Your task to perform on an android device: Open sound settings Image 0: 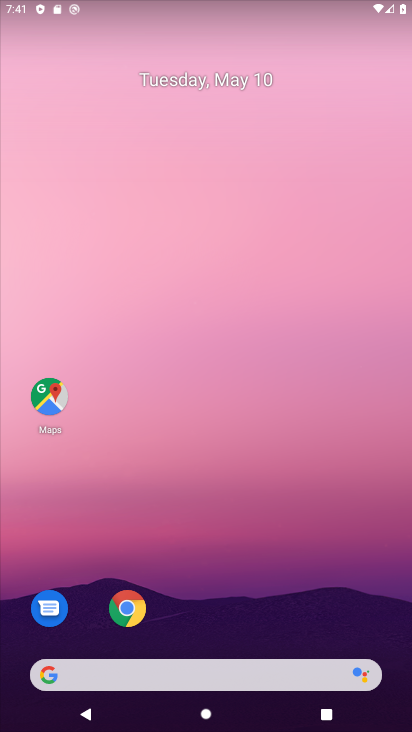
Step 0: drag from (273, 637) to (277, 300)
Your task to perform on an android device: Open sound settings Image 1: 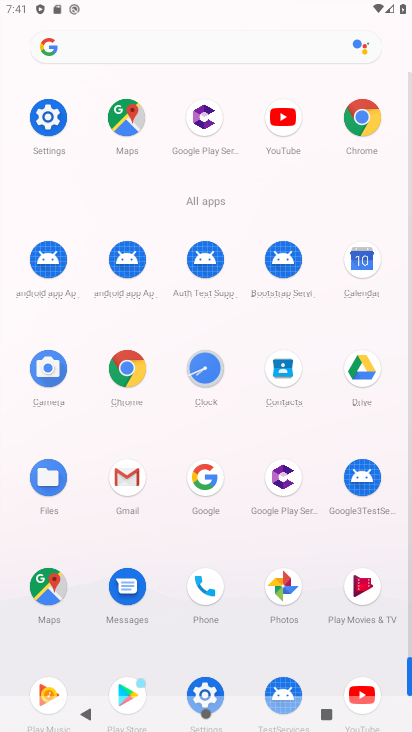
Step 1: click (40, 110)
Your task to perform on an android device: Open sound settings Image 2: 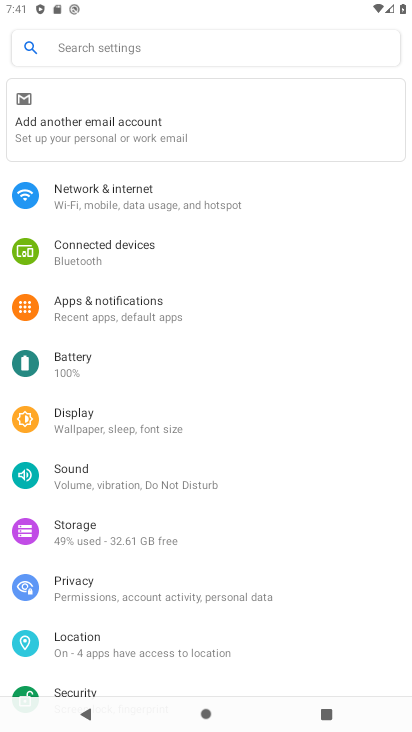
Step 2: click (114, 472)
Your task to perform on an android device: Open sound settings Image 3: 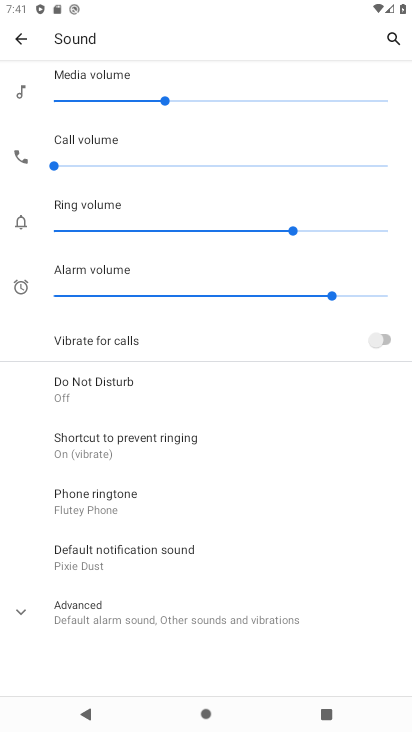
Step 3: task complete